Your task to perform on an android device: Open the map Image 0: 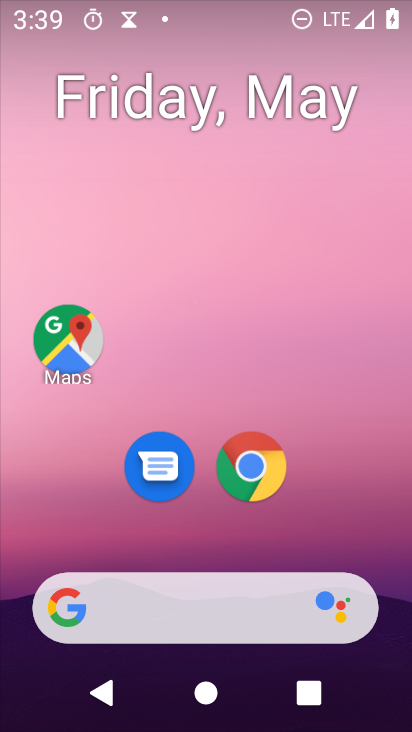
Step 0: drag from (330, 469) to (318, 112)
Your task to perform on an android device: Open the map Image 1: 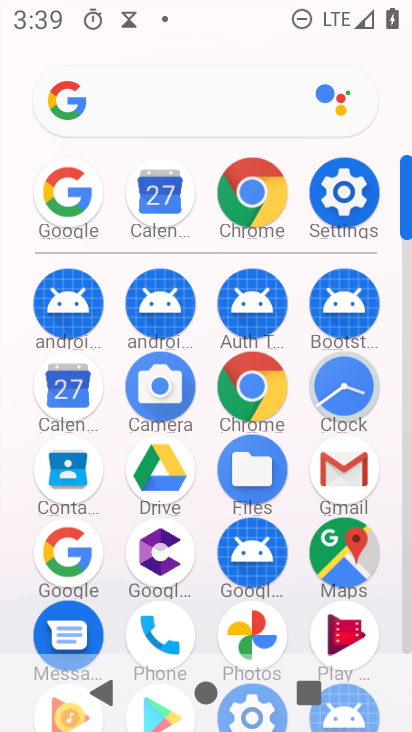
Step 1: click (345, 561)
Your task to perform on an android device: Open the map Image 2: 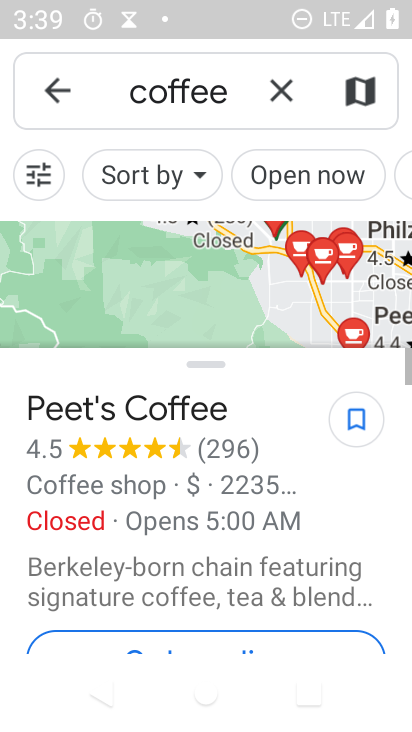
Step 2: task complete